Your task to perform on an android device: Open privacy settings Image 0: 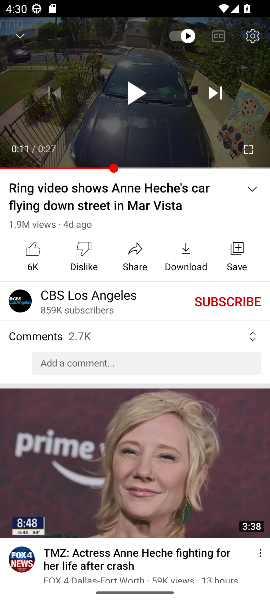
Step 0: press home button
Your task to perform on an android device: Open privacy settings Image 1: 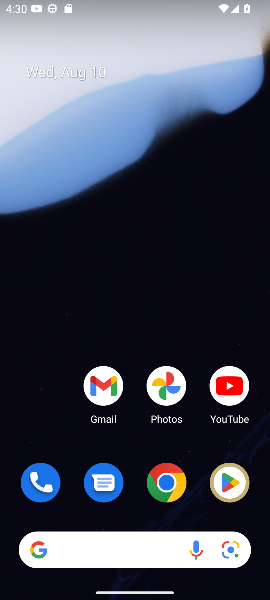
Step 1: drag from (59, 415) to (76, 81)
Your task to perform on an android device: Open privacy settings Image 2: 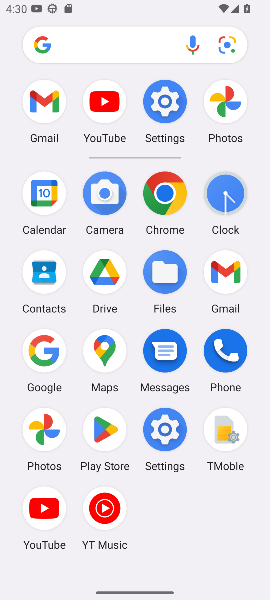
Step 2: click (170, 100)
Your task to perform on an android device: Open privacy settings Image 3: 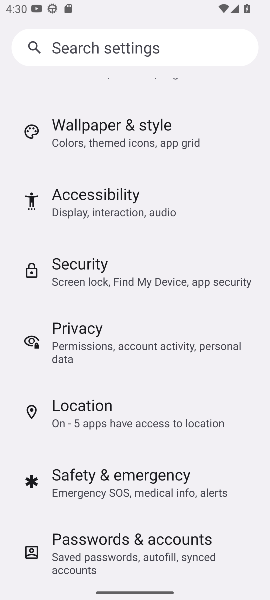
Step 3: click (128, 341)
Your task to perform on an android device: Open privacy settings Image 4: 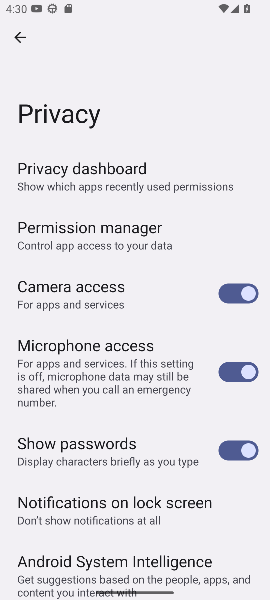
Step 4: task complete